Your task to perform on an android device: Turn off the flashlight Image 0: 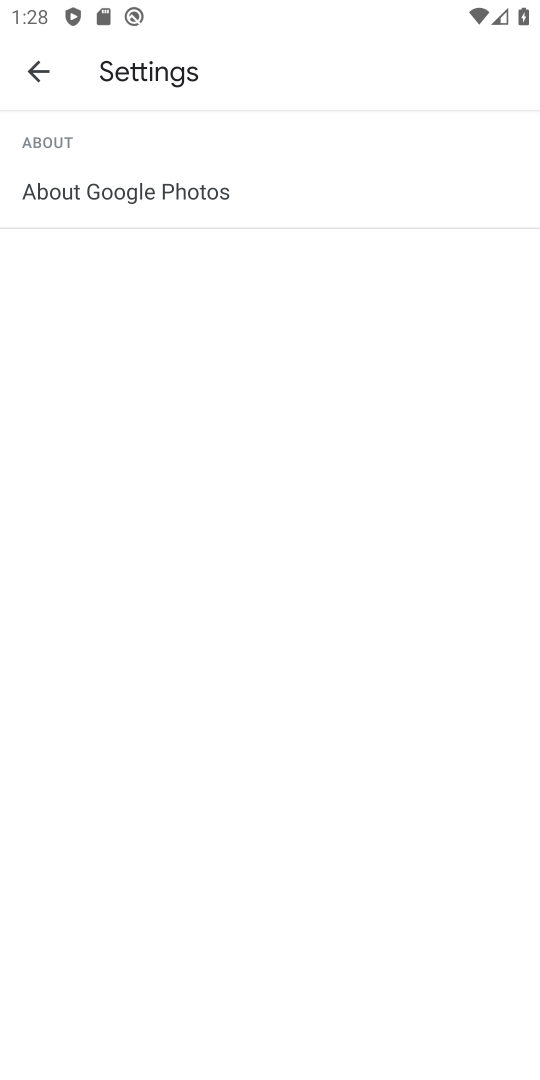
Step 0: press home button
Your task to perform on an android device: Turn off the flashlight Image 1: 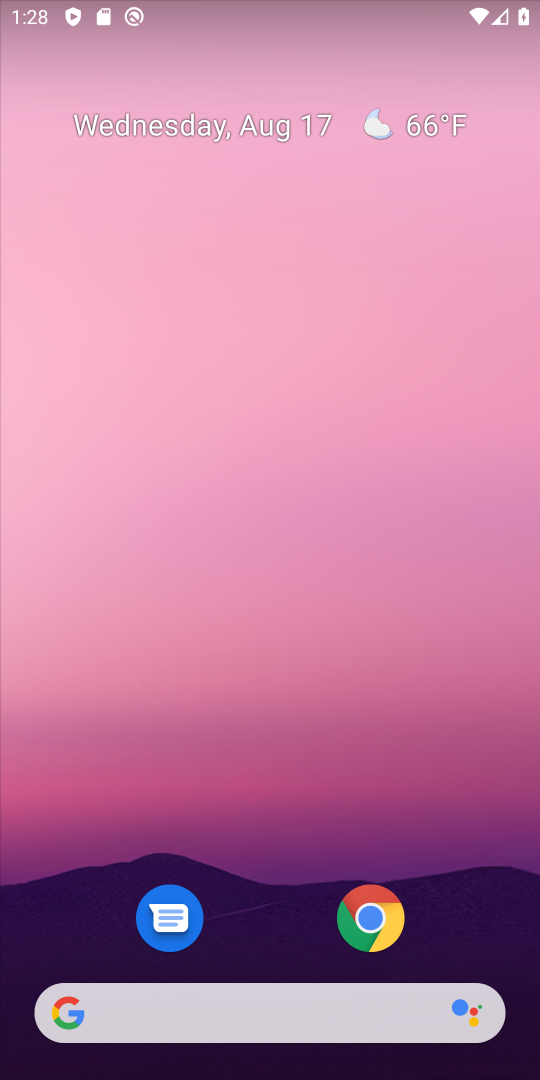
Step 1: task complete